Your task to perform on an android device: Open the map Image 0: 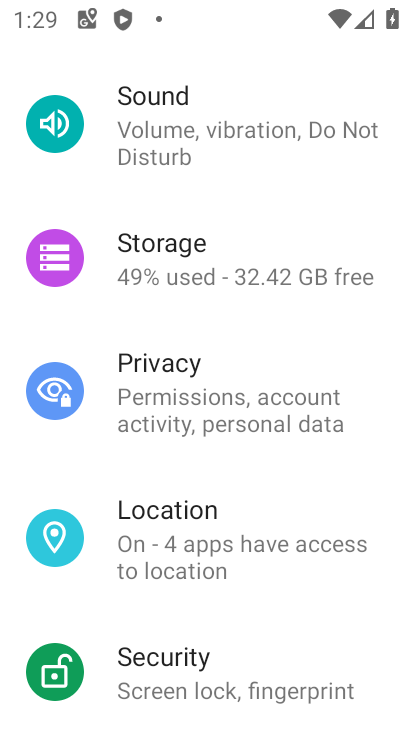
Step 0: press home button
Your task to perform on an android device: Open the map Image 1: 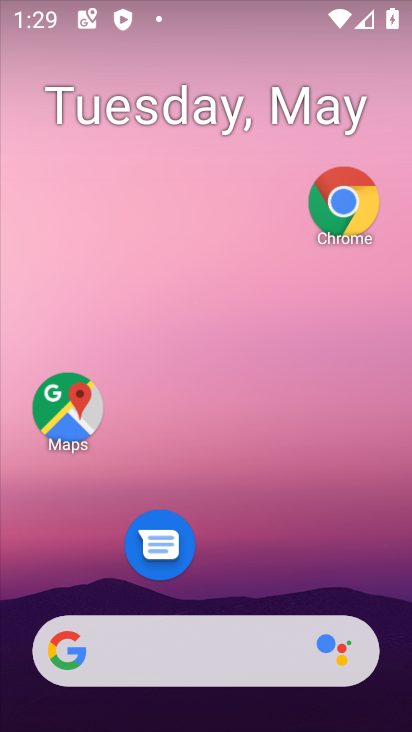
Step 1: click (84, 397)
Your task to perform on an android device: Open the map Image 2: 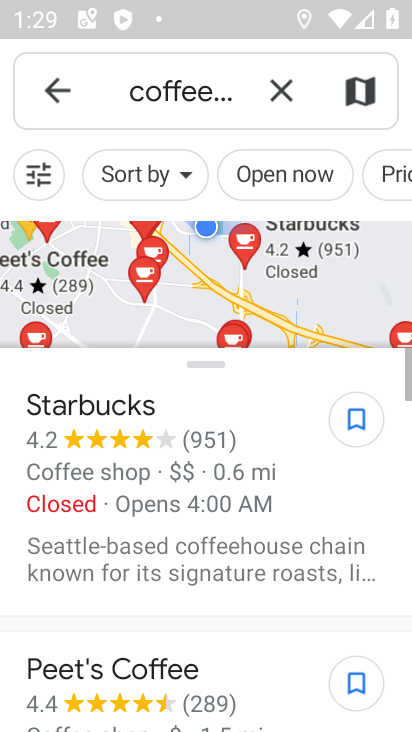
Step 2: task complete